Your task to perform on an android device: open the mobile data screen to see how much data has been used Image 0: 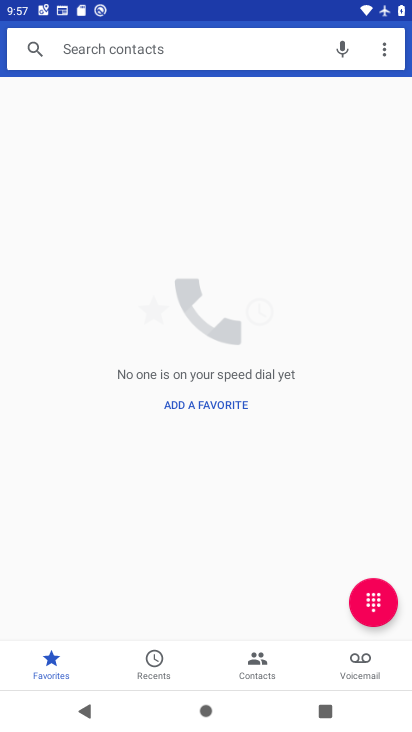
Step 0: press home button
Your task to perform on an android device: open the mobile data screen to see how much data has been used Image 1: 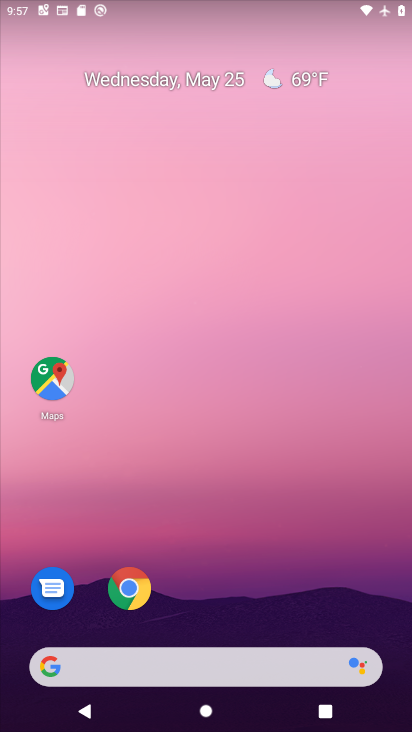
Step 1: drag from (360, 563) to (357, 152)
Your task to perform on an android device: open the mobile data screen to see how much data has been used Image 2: 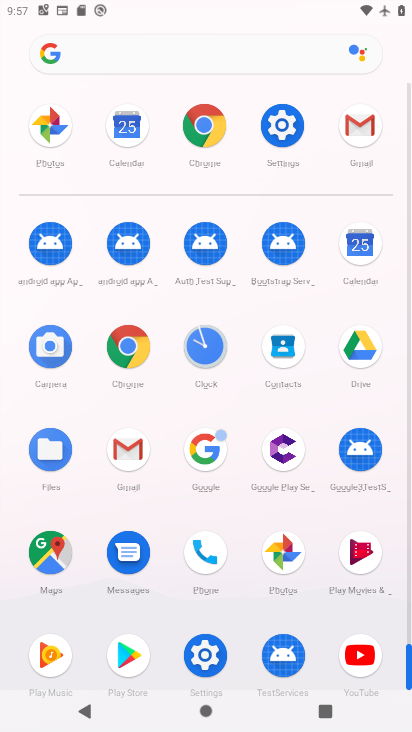
Step 2: click (280, 131)
Your task to perform on an android device: open the mobile data screen to see how much data has been used Image 3: 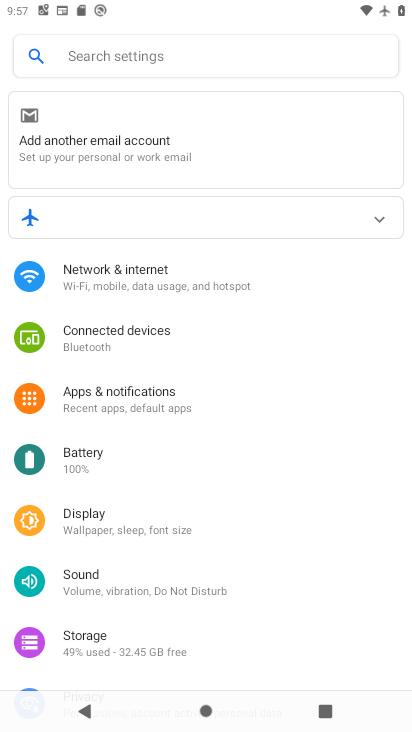
Step 3: click (233, 292)
Your task to perform on an android device: open the mobile data screen to see how much data has been used Image 4: 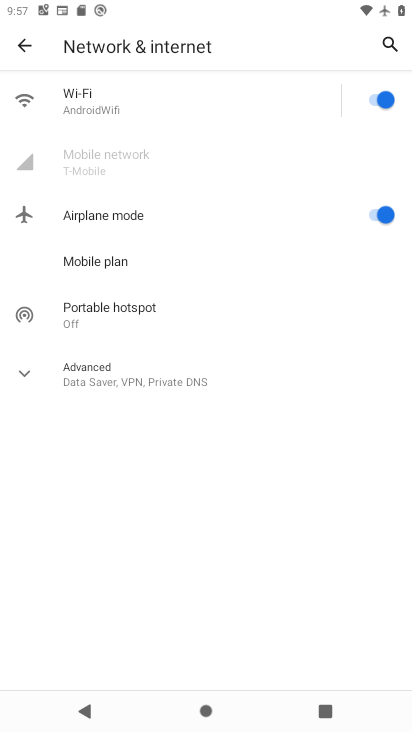
Step 4: task complete